Your task to perform on an android device: add a contact in the contacts app Image 0: 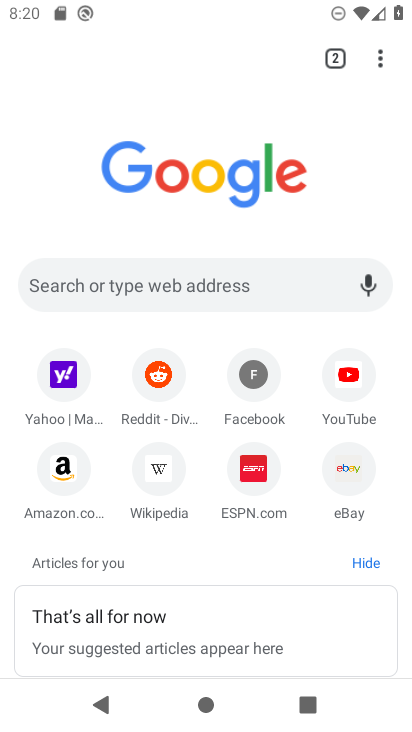
Step 0: press home button
Your task to perform on an android device: add a contact in the contacts app Image 1: 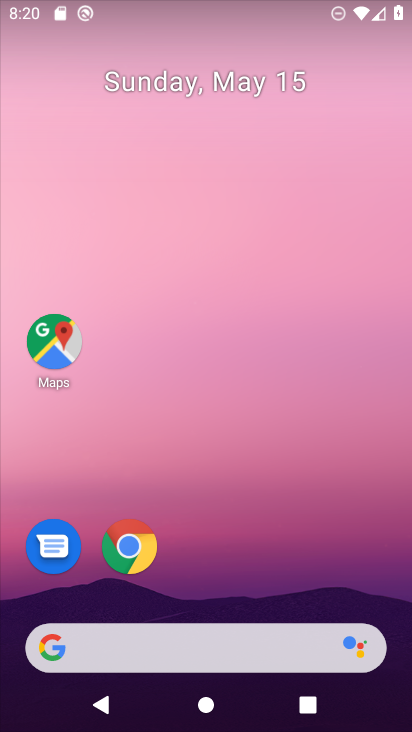
Step 1: drag from (271, 529) to (248, 58)
Your task to perform on an android device: add a contact in the contacts app Image 2: 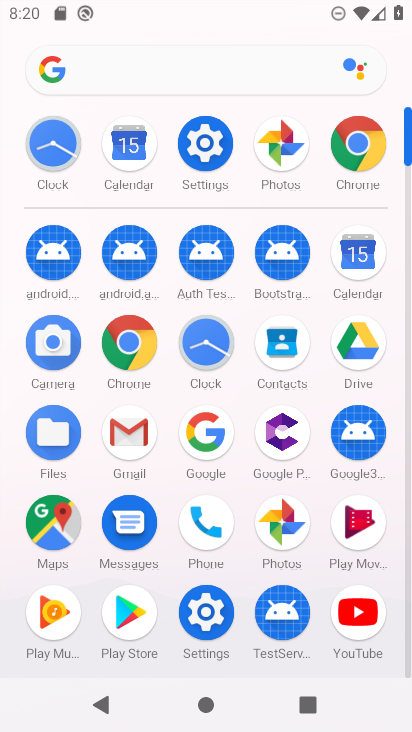
Step 2: click (197, 130)
Your task to perform on an android device: add a contact in the contacts app Image 3: 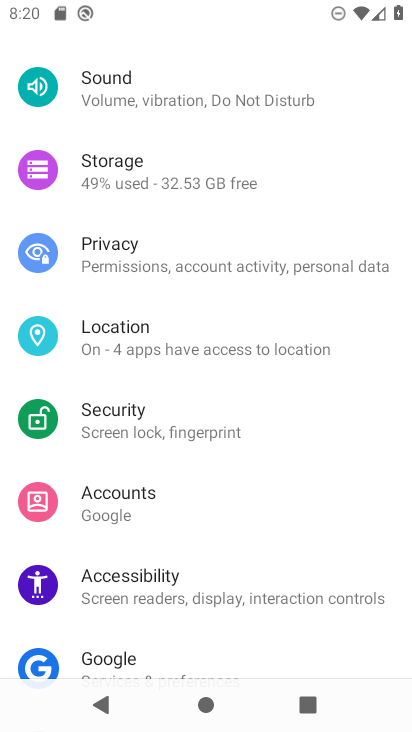
Step 3: press back button
Your task to perform on an android device: add a contact in the contacts app Image 4: 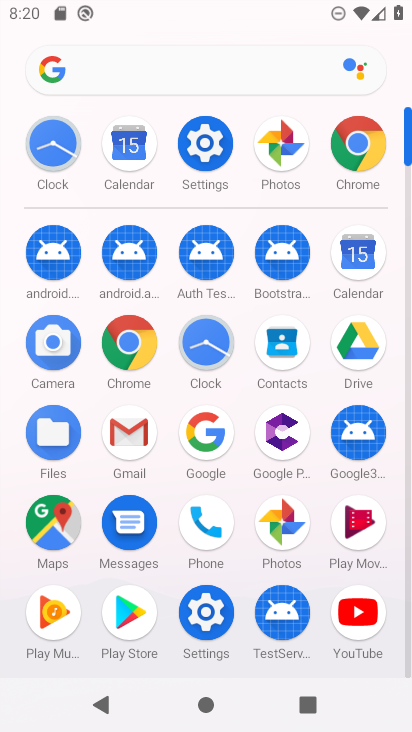
Step 4: click (283, 351)
Your task to perform on an android device: add a contact in the contacts app Image 5: 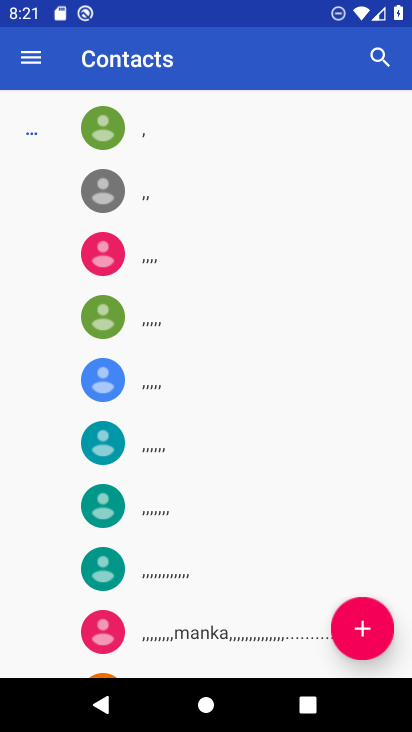
Step 5: click (364, 621)
Your task to perform on an android device: add a contact in the contacts app Image 6: 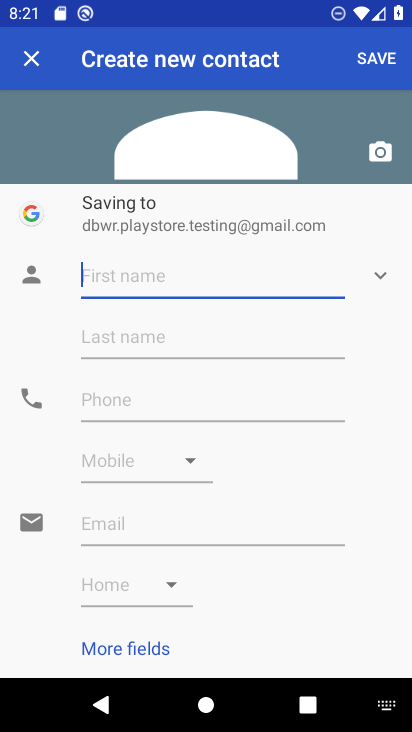
Step 6: type "Cronch Pushkar "
Your task to perform on an android device: add a contact in the contacts app Image 7: 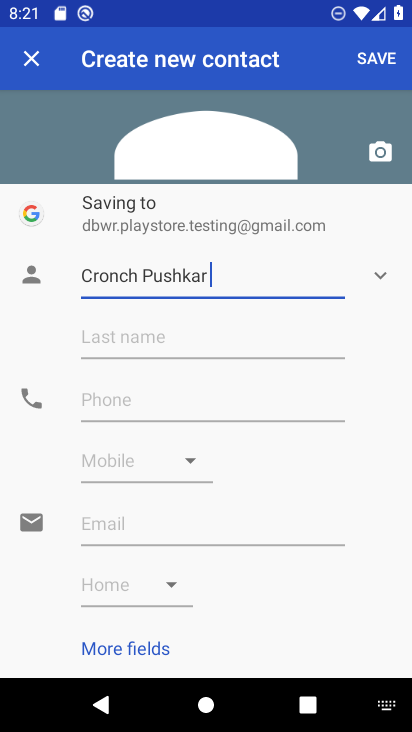
Step 7: click (239, 336)
Your task to perform on an android device: add a contact in the contacts app Image 8: 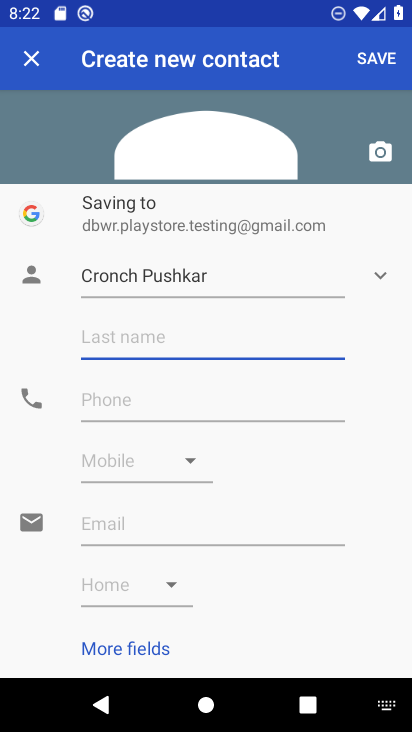
Step 8: type "Kush "
Your task to perform on an android device: add a contact in the contacts app Image 9: 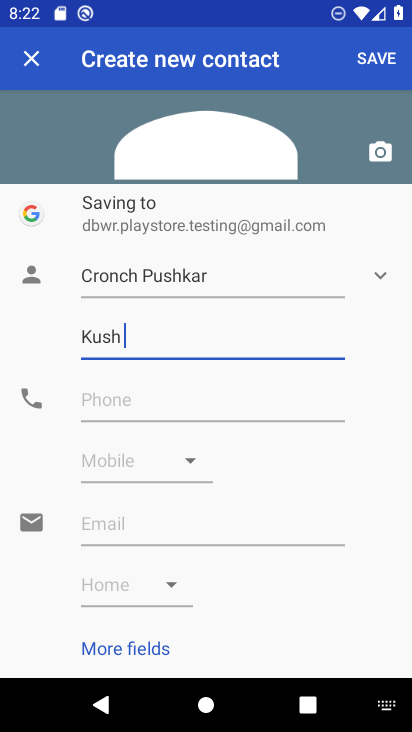
Step 9: click (296, 394)
Your task to perform on an android device: add a contact in the contacts app Image 10: 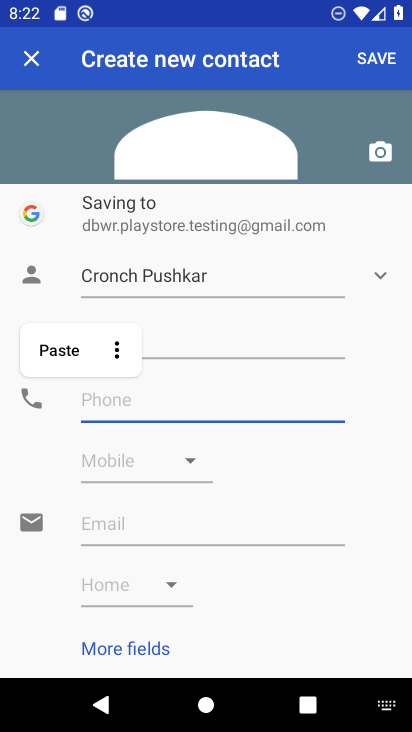
Step 10: type "01133557799"
Your task to perform on an android device: add a contact in the contacts app Image 11: 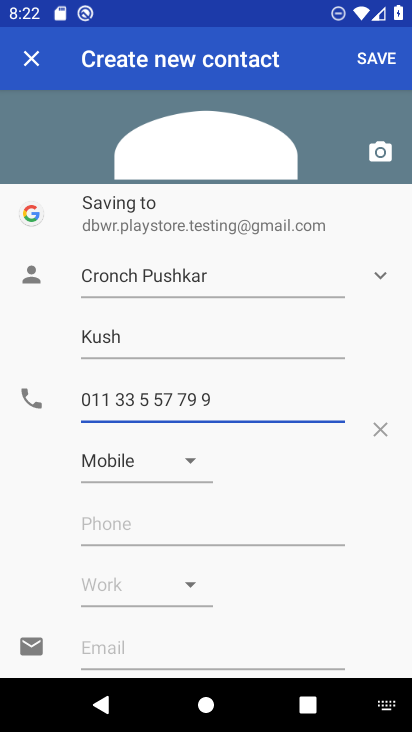
Step 11: click (383, 54)
Your task to perform on an android device: add a contact in the contacts app Image 12: 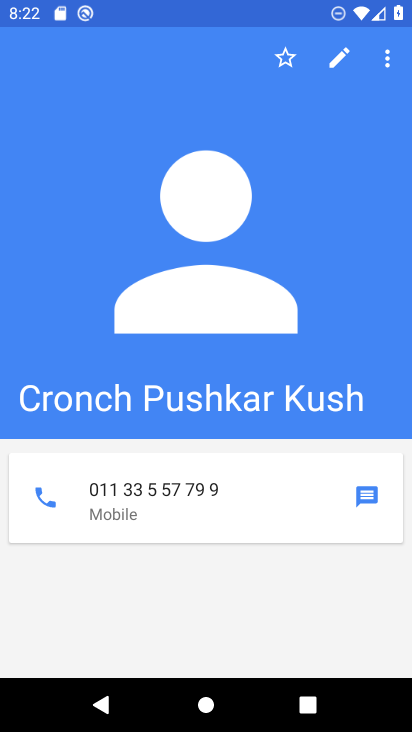
Step 12: task complete